Your task to perform on an android device: Go to eBay Image 0: 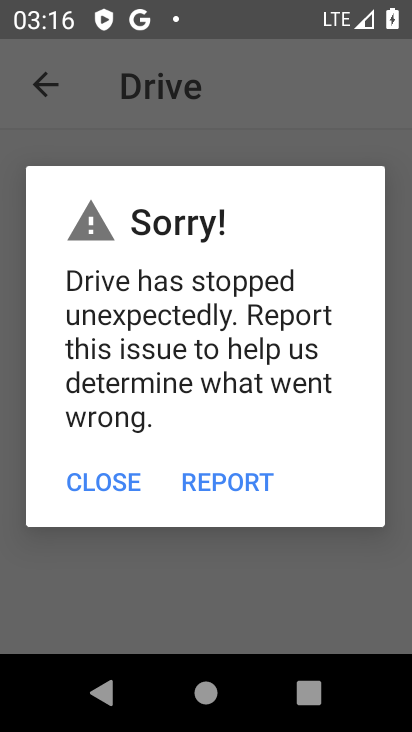
Step 0: press back button
Your task to perform on an android device: Go to eBay Image 1: 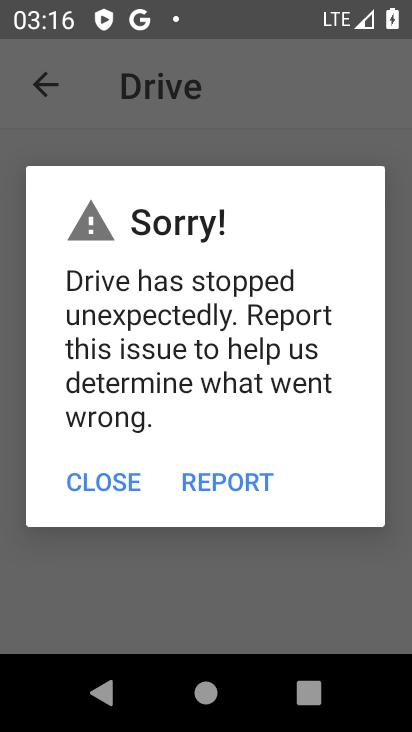
Step 1: press home button
Your task to perform on an android device: Go to eBay Image 2: 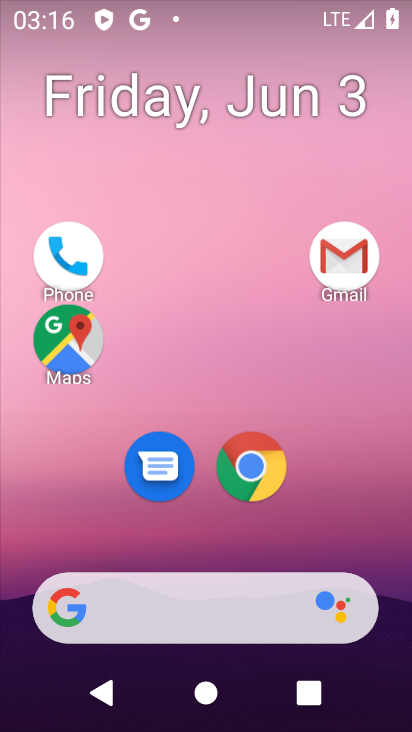
Step 2: drag from (200, 544) to (219, 110)
Your task to perform on an android device: Go to eBay Image 3: 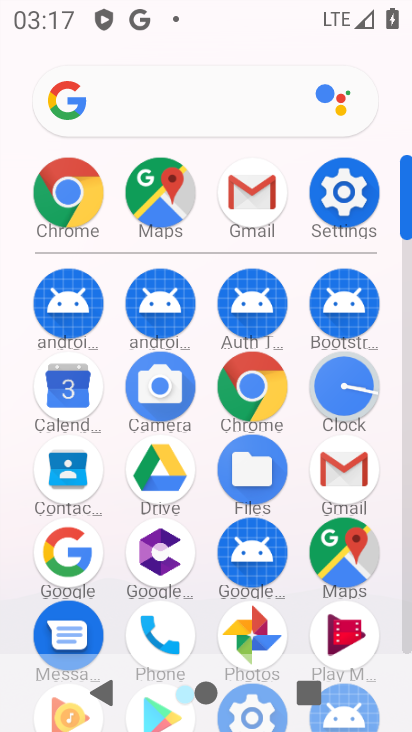
Step 3: click (66, 182)
Your task to perform on an android device: Go to eBay Image 4: 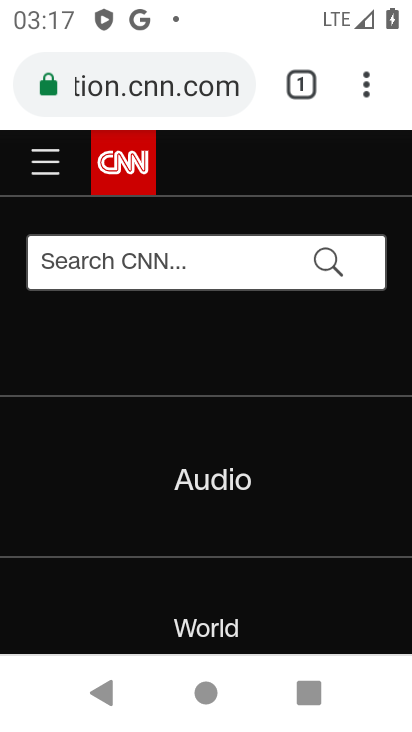
Step 4: press back button
Your task to perform on an android device: Go to eBay Image 5: 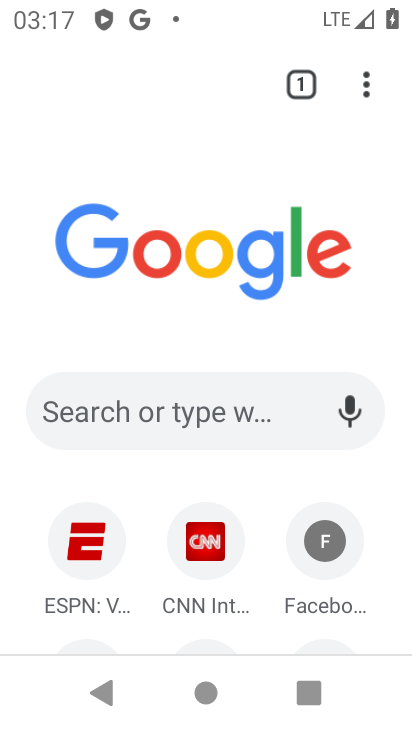
Step 5: drag from (271, 590) to (251, 423)
Your task to perform on an android device: Go to eBay Image 6: 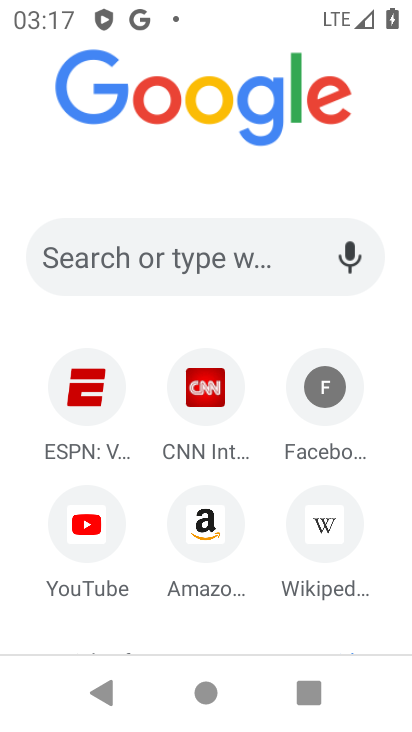
Step 6: click (171, 265)
Your task to perform on an android device: Go to eBay Image 7: 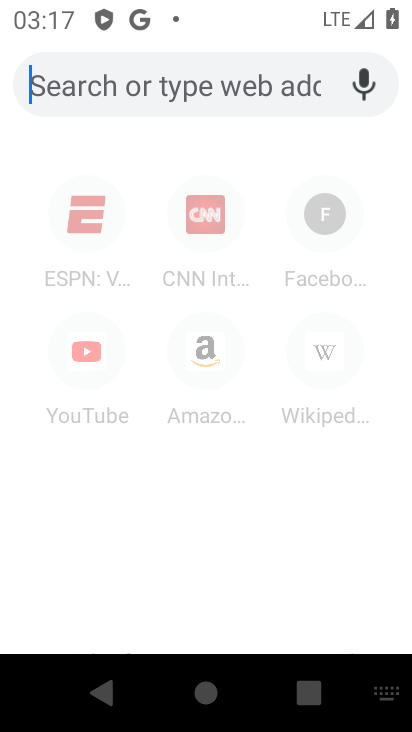
Step 7: type "www.ebay.com"
Your task to perform on an android device: Go to eBay Image 8: 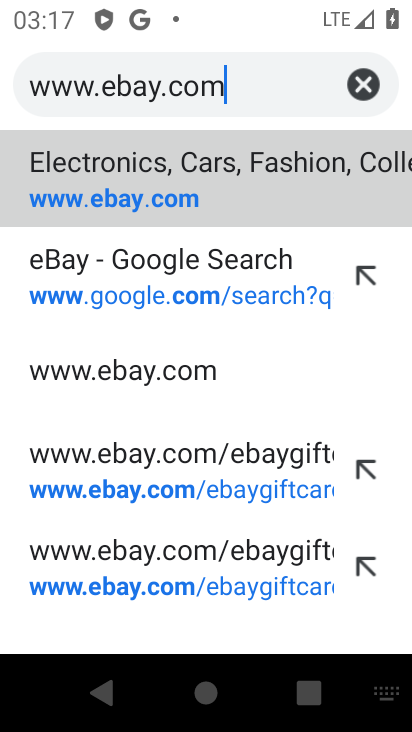
Step 8: click (116, 178)
Your task to perform on an android device: Go to eBay Image 9: 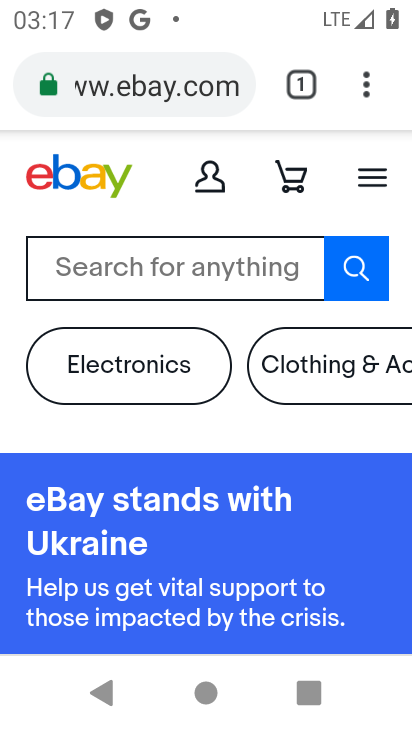
Step 9: task complete